Your task to perform on an android device: turn on the 24-hour format for clock Image 0: 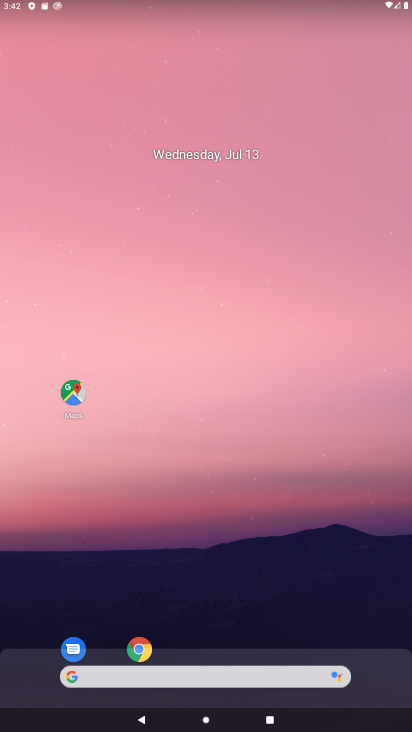
Step 0: drag from (213, 689) to (263, 64)
Your task to perform on an android device: turn on the 24-hour format for clock Image 1: 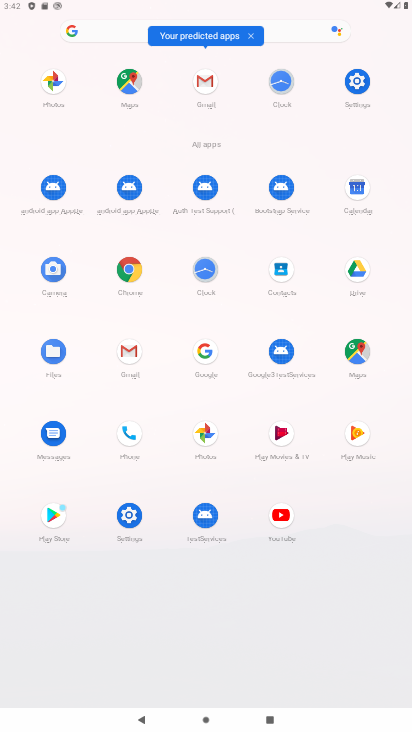
Step 1: click (282, 80)
Your task to perform on an android device: turn on the 24-hour format for clock Image 2: 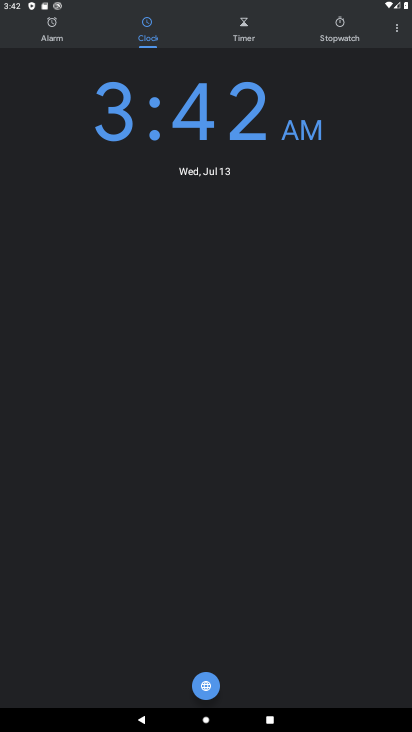
Step 2: click (399, 28)
Your task to perform on an android device: turn on the 24-hour format for clock Image 3: 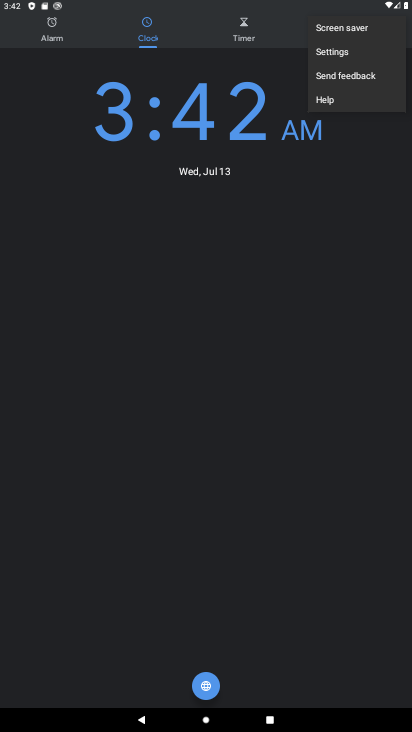
Step 3: click (342, 49)
Your task to perform on an android device: turn on the 24-hour format for clock Image 4: 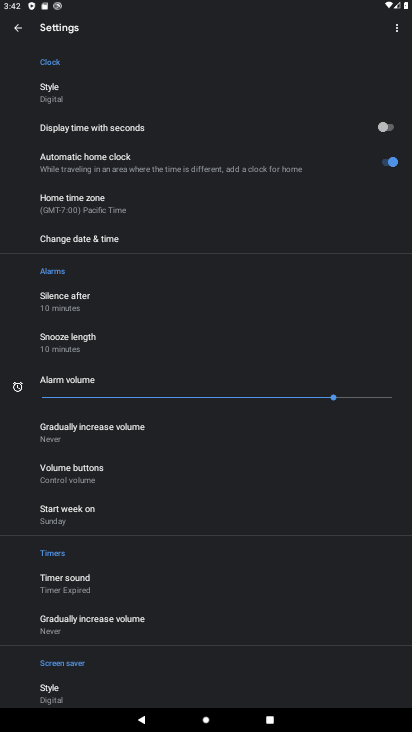
Step 4: click (121, 242)
Your task to perform on an android device: turn on the 24-hour format for clock Image 5: 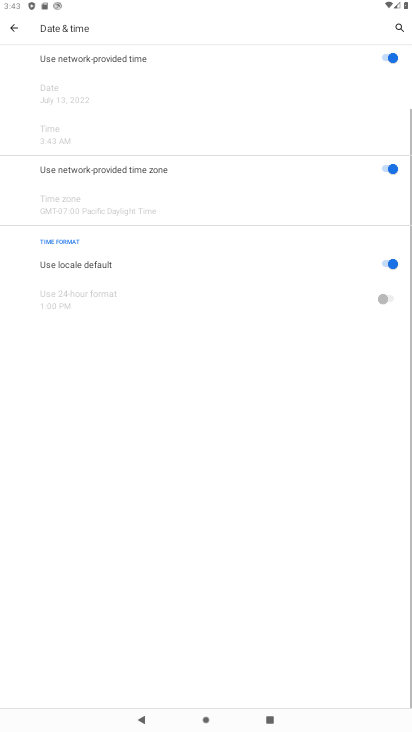
Step 5: click (388, 259)
Your task to perform on an android device: turn on the 24-hour format for clock Image 6: 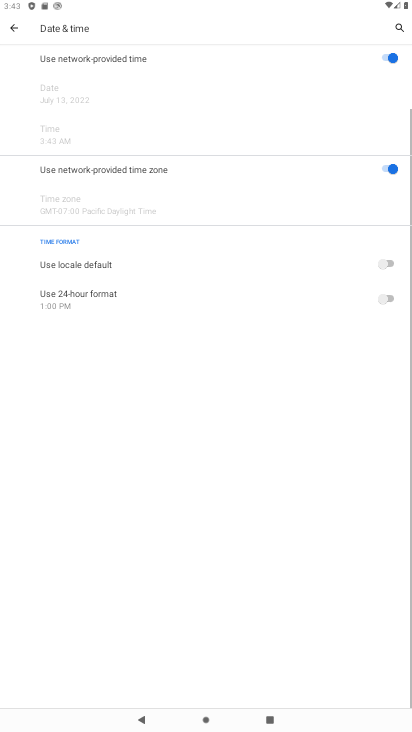
Step 6: click (394, 298)
Your task to perform on an android device: turn on the 24-hour format for clock Image 7: 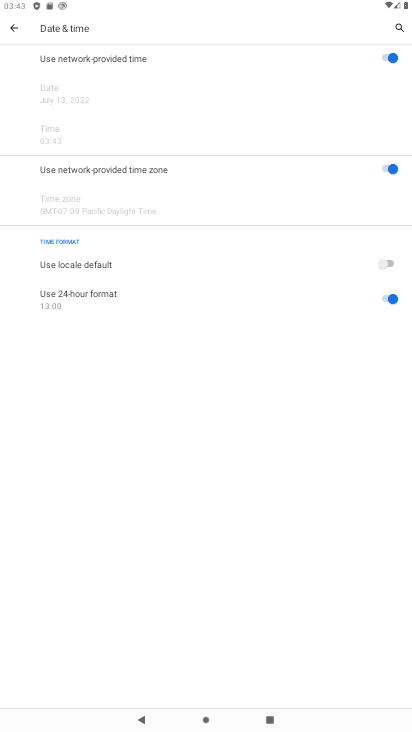
Step 7: task complete